Your task to perform on an android device: turn off location Image 0: 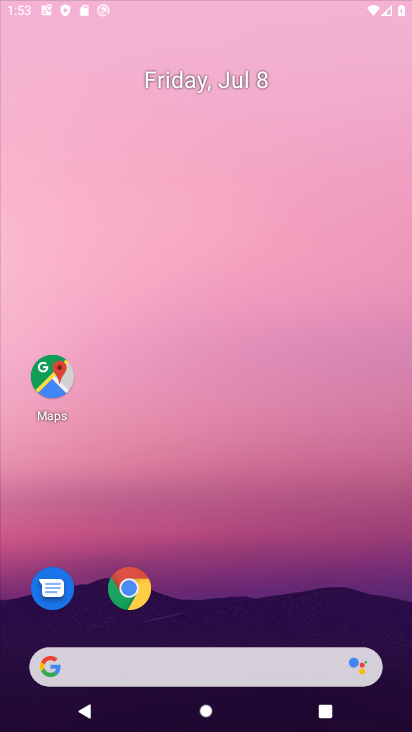
Step 0: press home button
Your task to perform on an android device: turn off location Image 1: 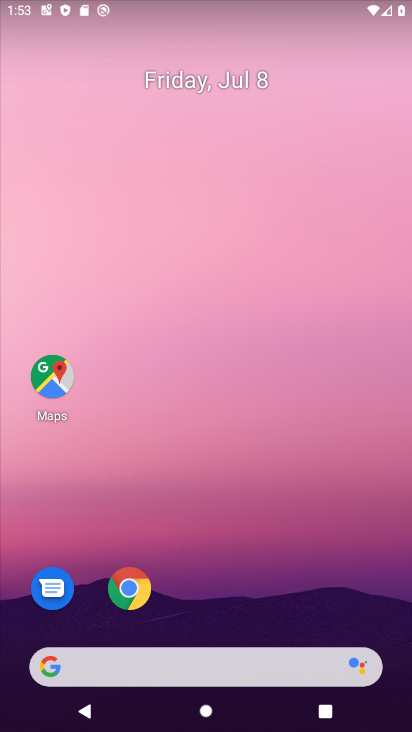
Step 1: drag from (228, 617) to (154, 112)
Your task to perform on an android device: turn off location Image 2: 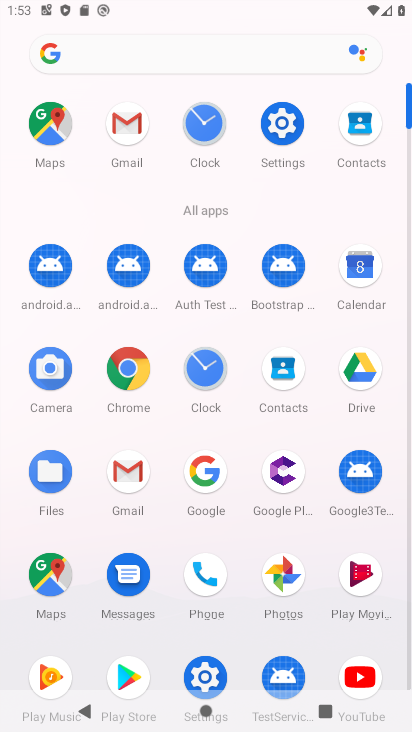
Step 2: click (284, 137)
Your task to perform on an android device: turn off location Image 3: 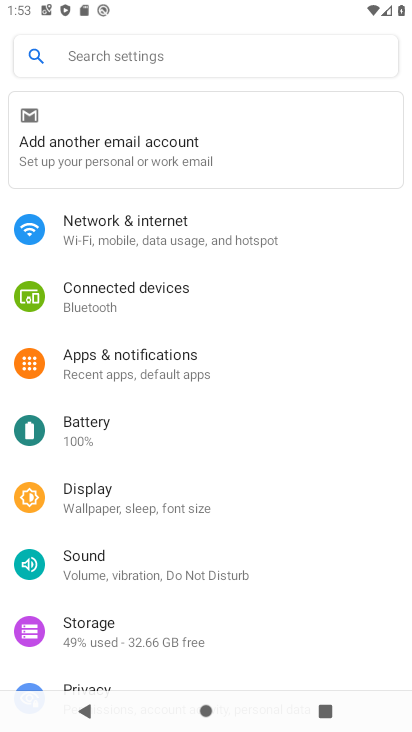
Step 3: drag from (301, 620) to (306, 183)
Your task to perform on an android device: turn off location Image 4: 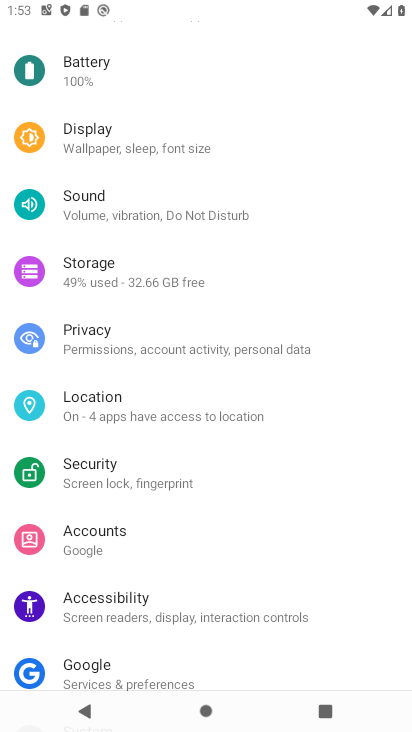
Step 4: click (81, 412)
Your task to perform on an android device: turn off location Image 5: 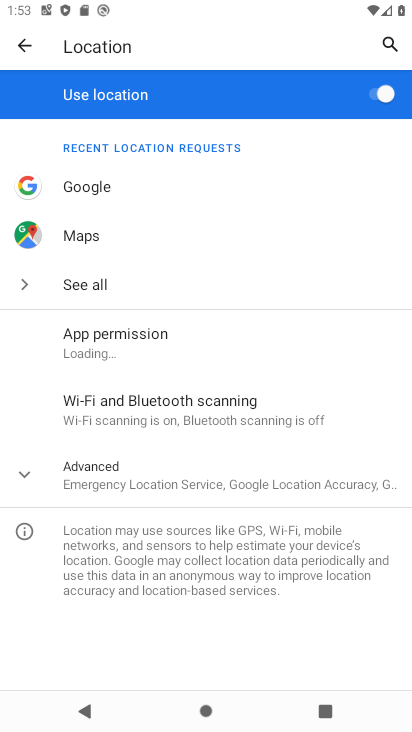
Step 5: click (388, 94)
Your task to perform on an android device: turn off location Image 6: 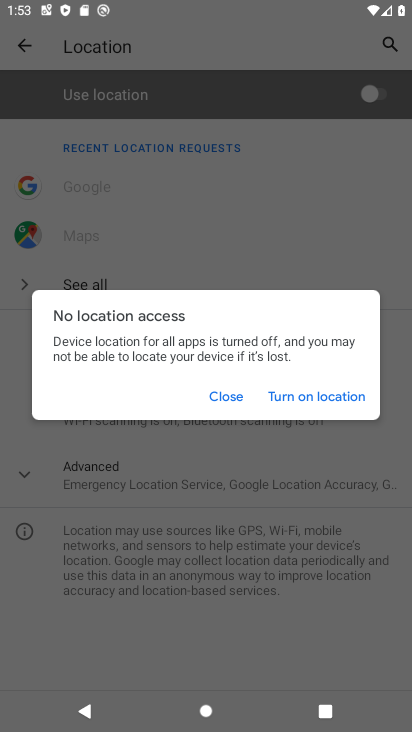
Step 6: task complete